Your task to perform on an android device: Search for Mexican restaurants on Maps Image 0: 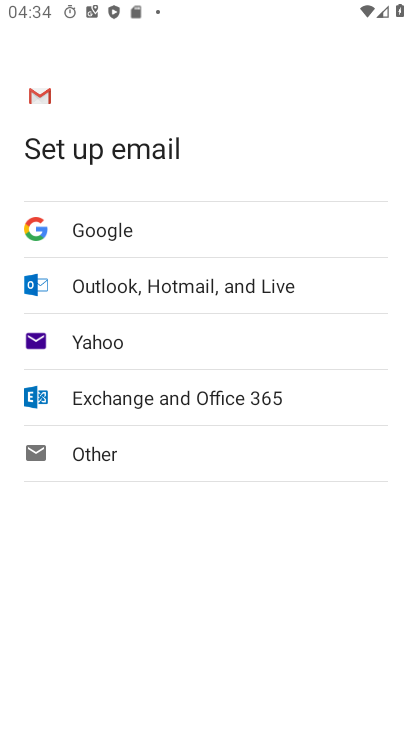
Step 0: press back button
Your task to perform on an android device: Search for Mexican restaurants on Maps Image 1: 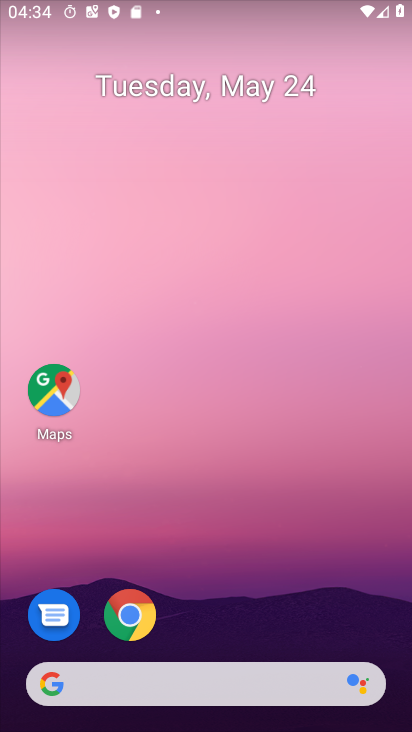
Step 1: click (53, 387)
Your task to perform on an android device: Search for Mexican restaurants on Maps Image 2: 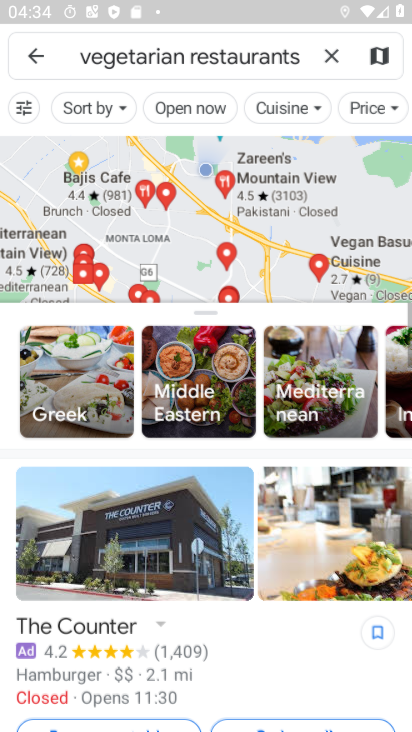
Step 2: click (327, 60)
Your task to perform on an android device: Search for Mexican restaurants on Maps Image 3: 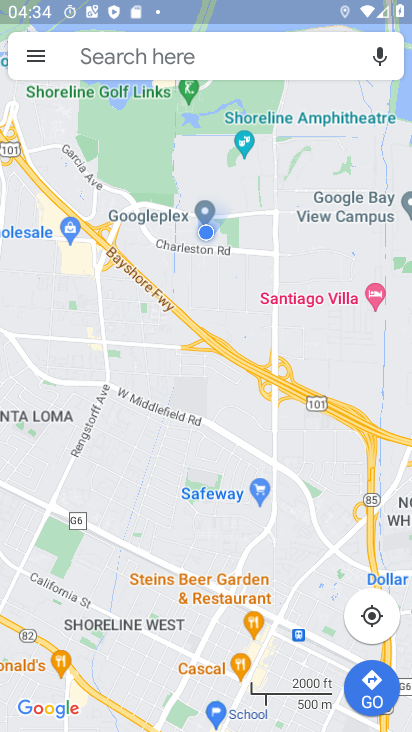
Step 3: click (139, 51)
Your task to perform on an android device: Search for Mexican restaurants on Maps Image 4: 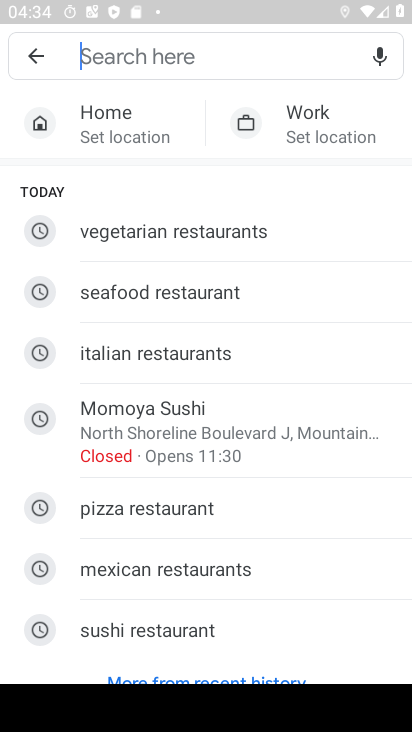
Step 4: click (108, 577)
Your task to perform on an android device: Search for Mexican restaurants on Maps Image 5: 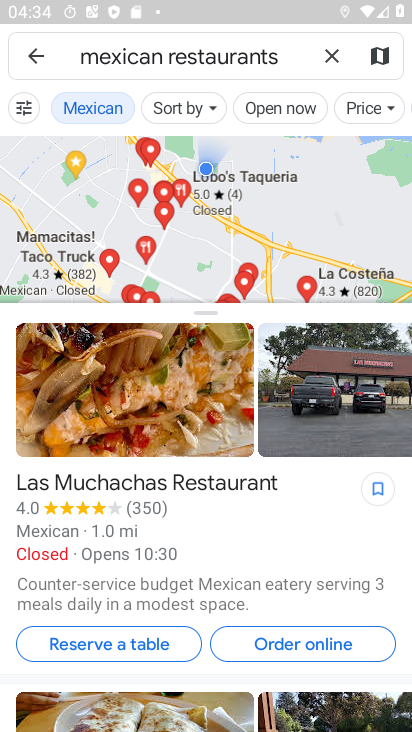
Step 5: task complete